Your task to perform on an android device: uninstall "Microsoft Excel" Image 0: 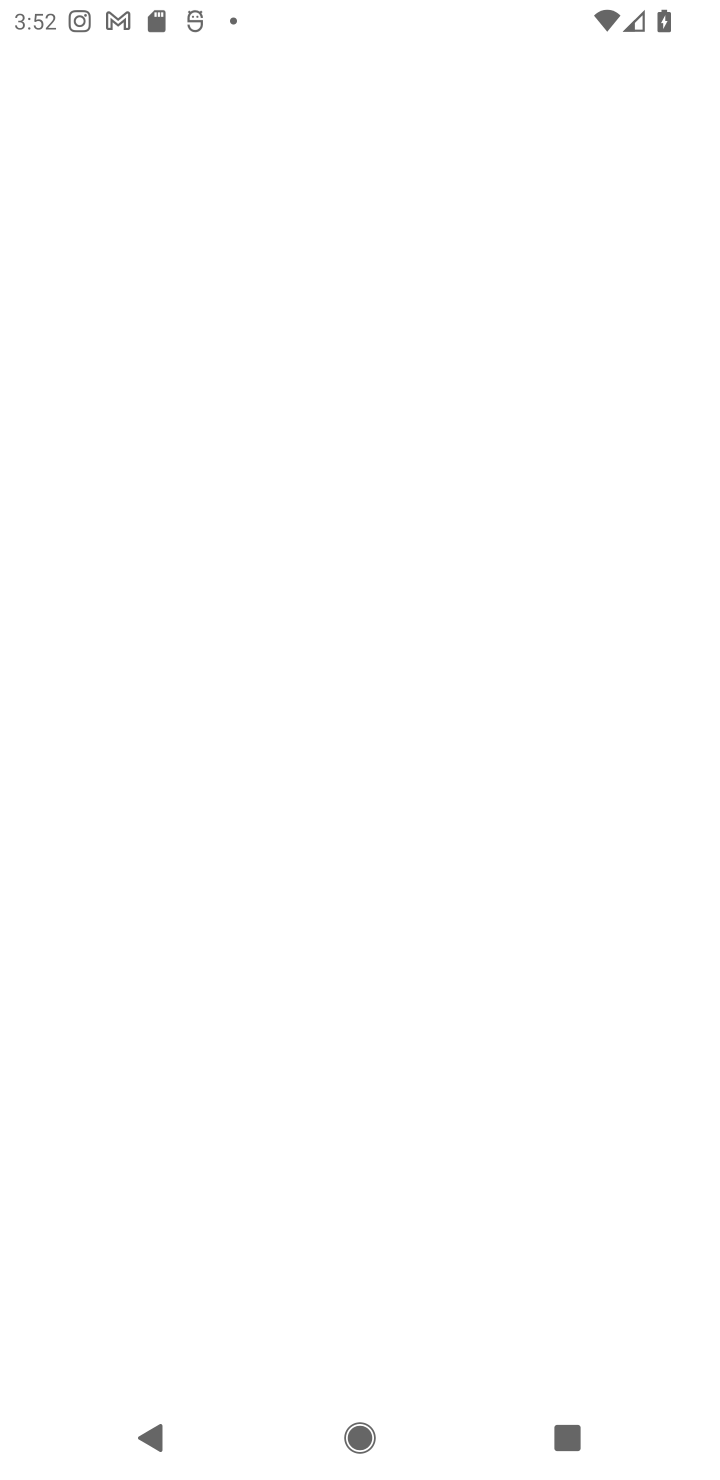
Step 0: press home button
Your task to perform on an android device: uninstall "Microsoft Excel" Image 1: 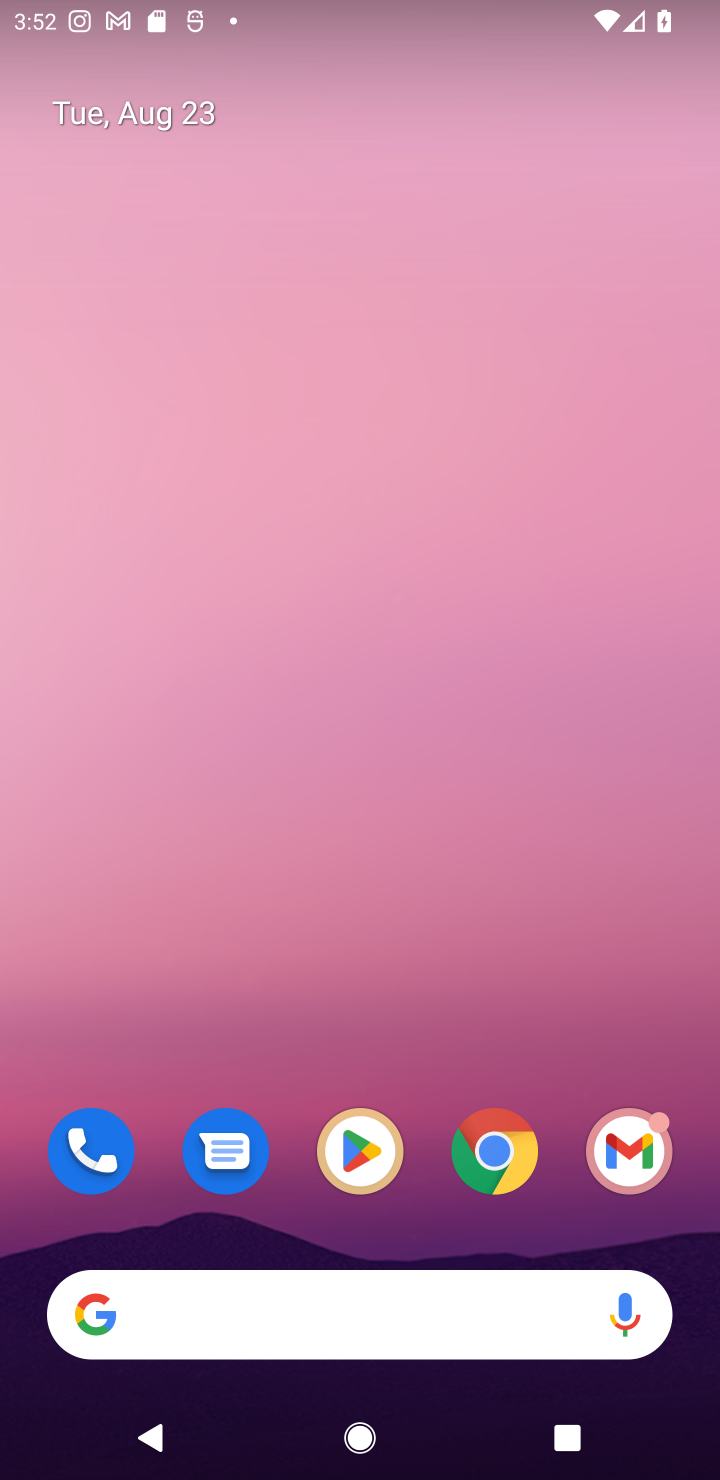
Step 1: click (378, 1155)
Your task to perform on an android device: uninstall "Microsoft Excel" Image 2: 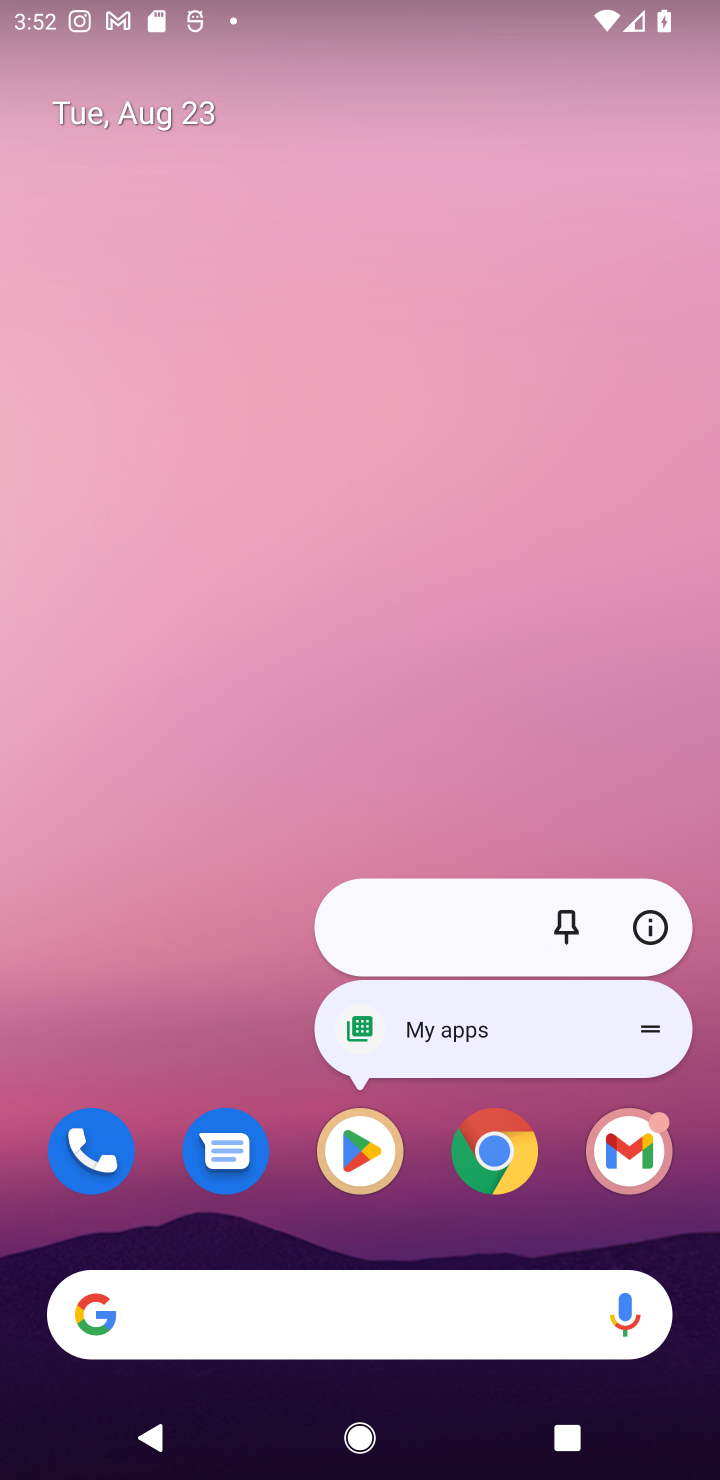
Step 2: click (367, 1158)
Your task to perform on an android device: uninstall "Microsoft Excel" Image 3: 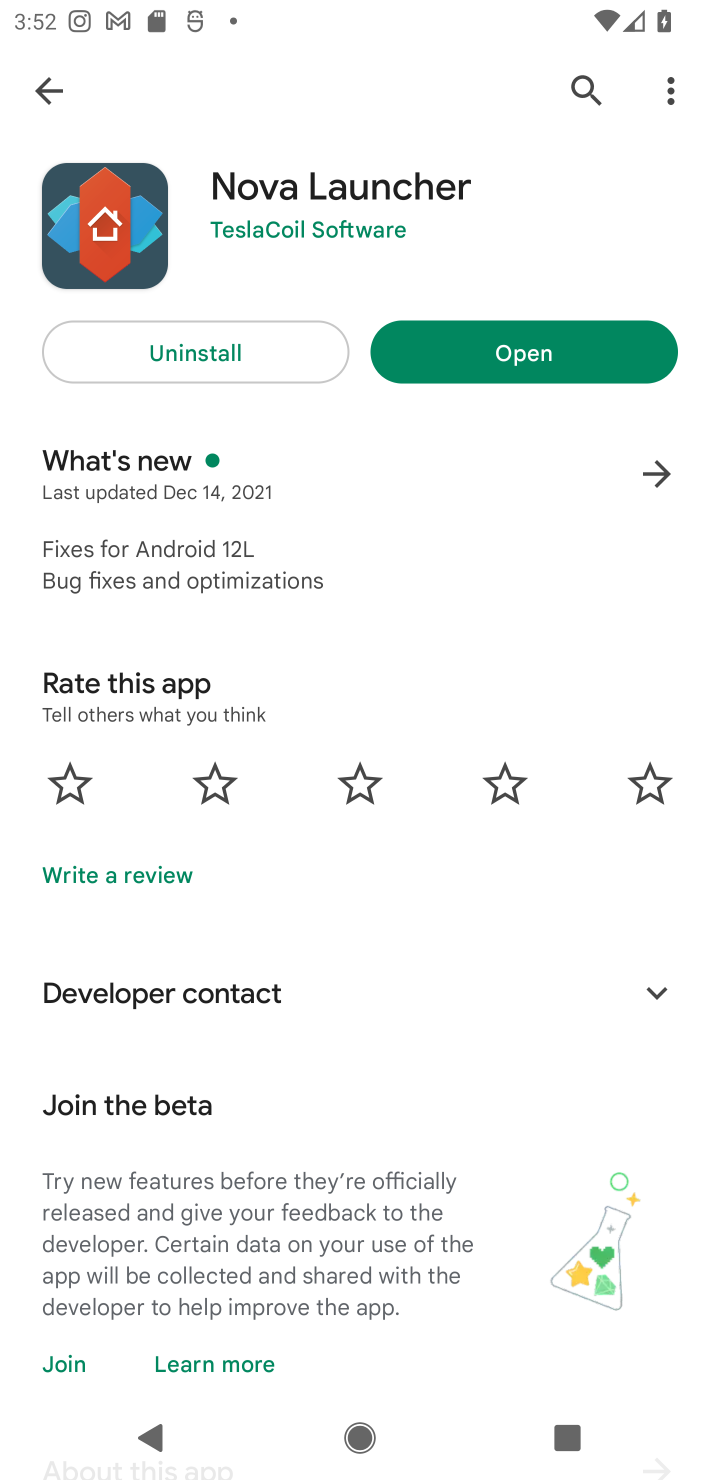
Step 3: click (579, 82)
Your task to perform on an android device: uninstall "Microsoft Excel" Image 4: 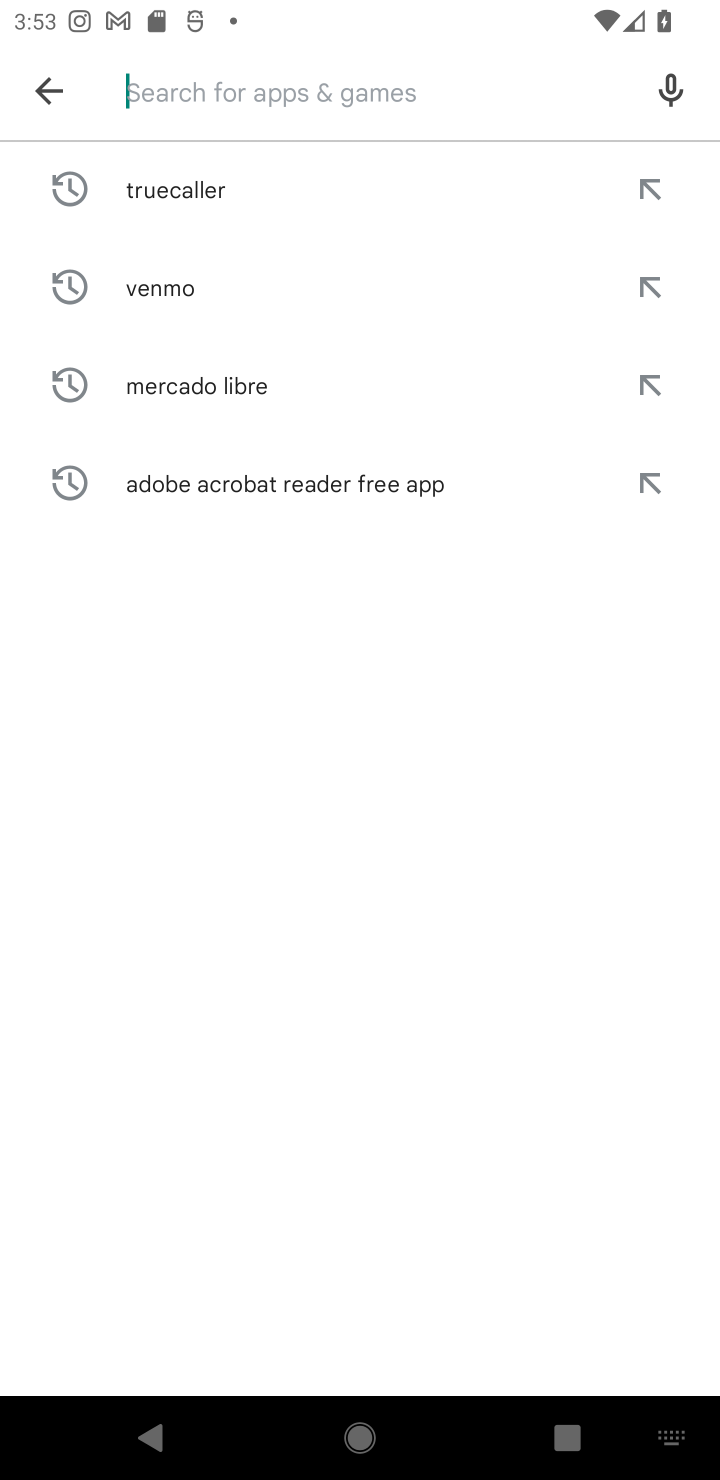
Step 4: type "Microsoft Excel"
Your task to perform on an android device: uninstall "Microsoft Excel" Image 5: 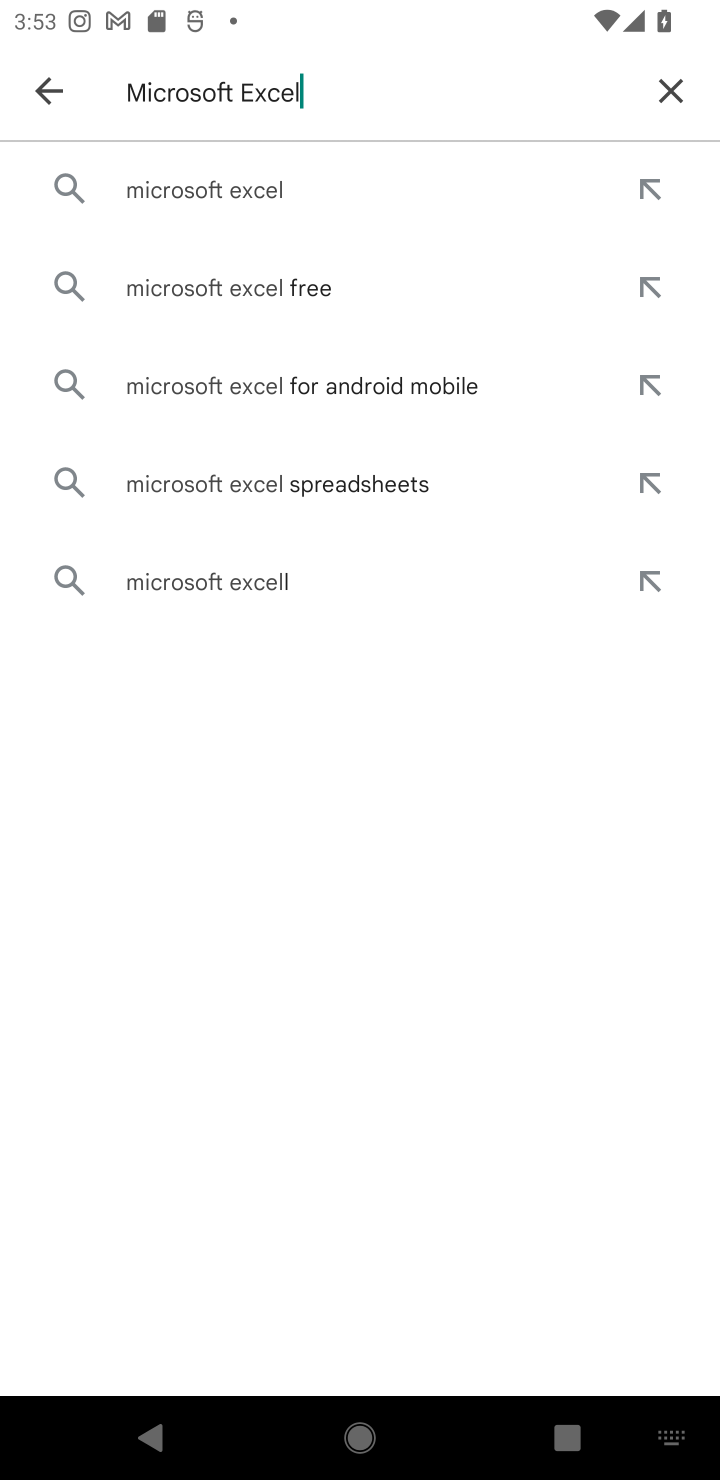
Step 5: click (241, 185)
Your task to perform on an android device: uninstall "Microsoft Excel" Image 6: 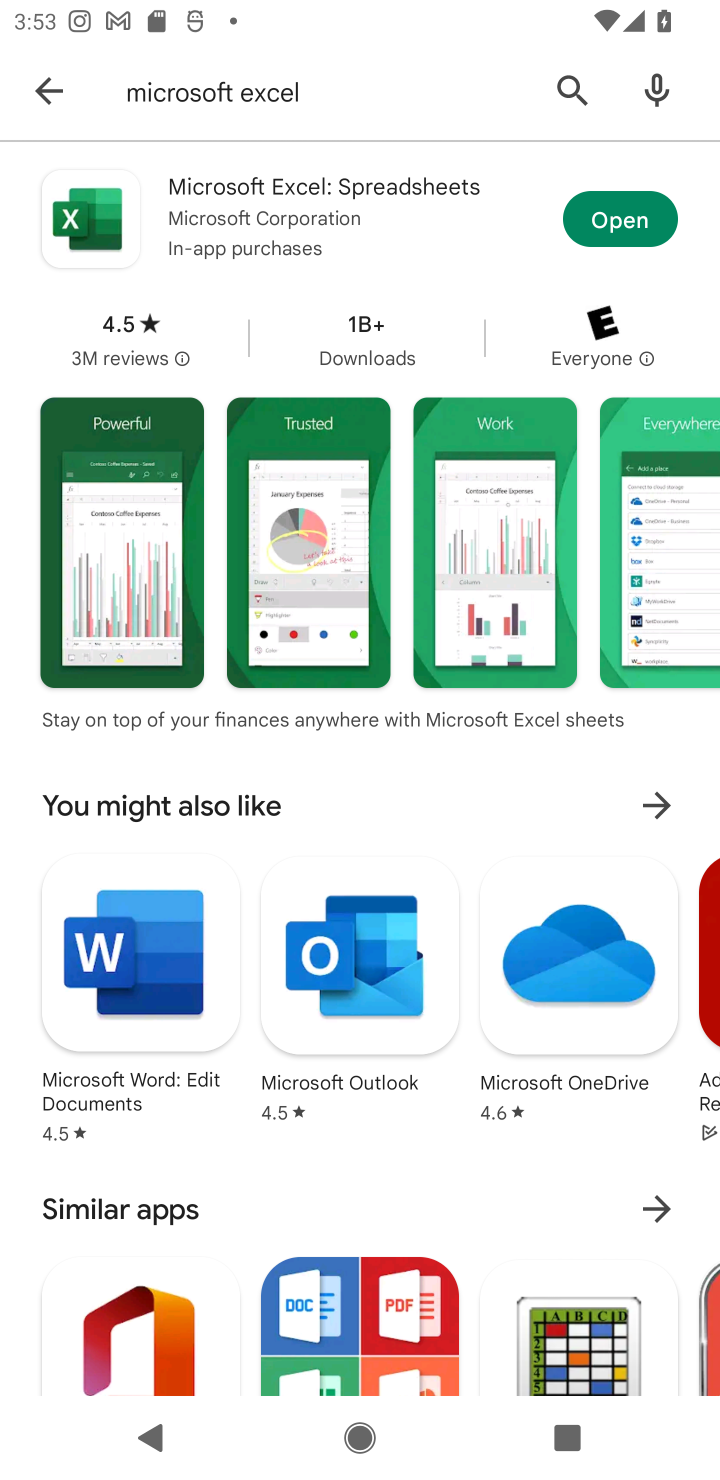
Step 6: click (197, 185)
Your task to perform on an android device: uninstall "Microsoft Excel" Image 7: 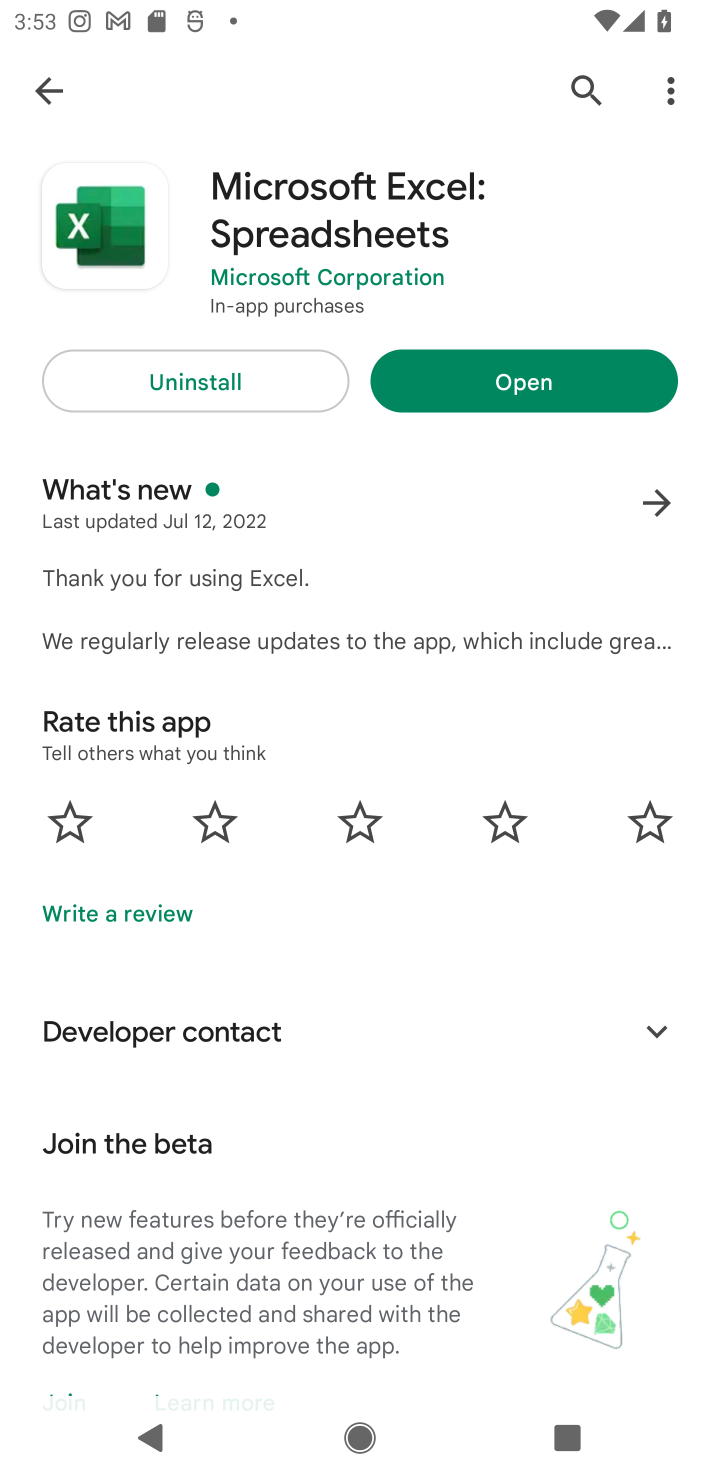
Step 7: click (207, 381)
Your task to perform on an android device: uninstall "Microsoft Excel" Image 8: 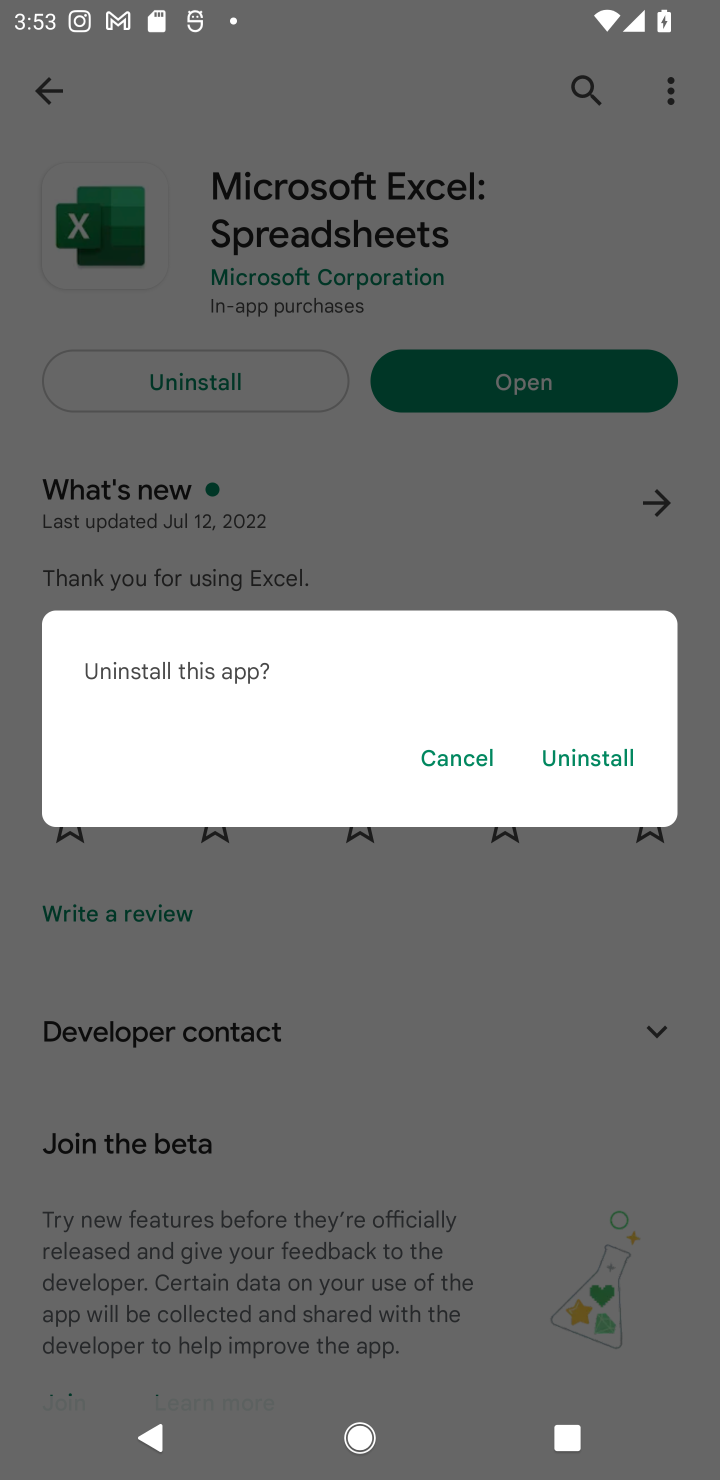
Step 8: click (583, 759)
Your task to perform on an android device: uninstall "Microsoft Excel" Image 9: 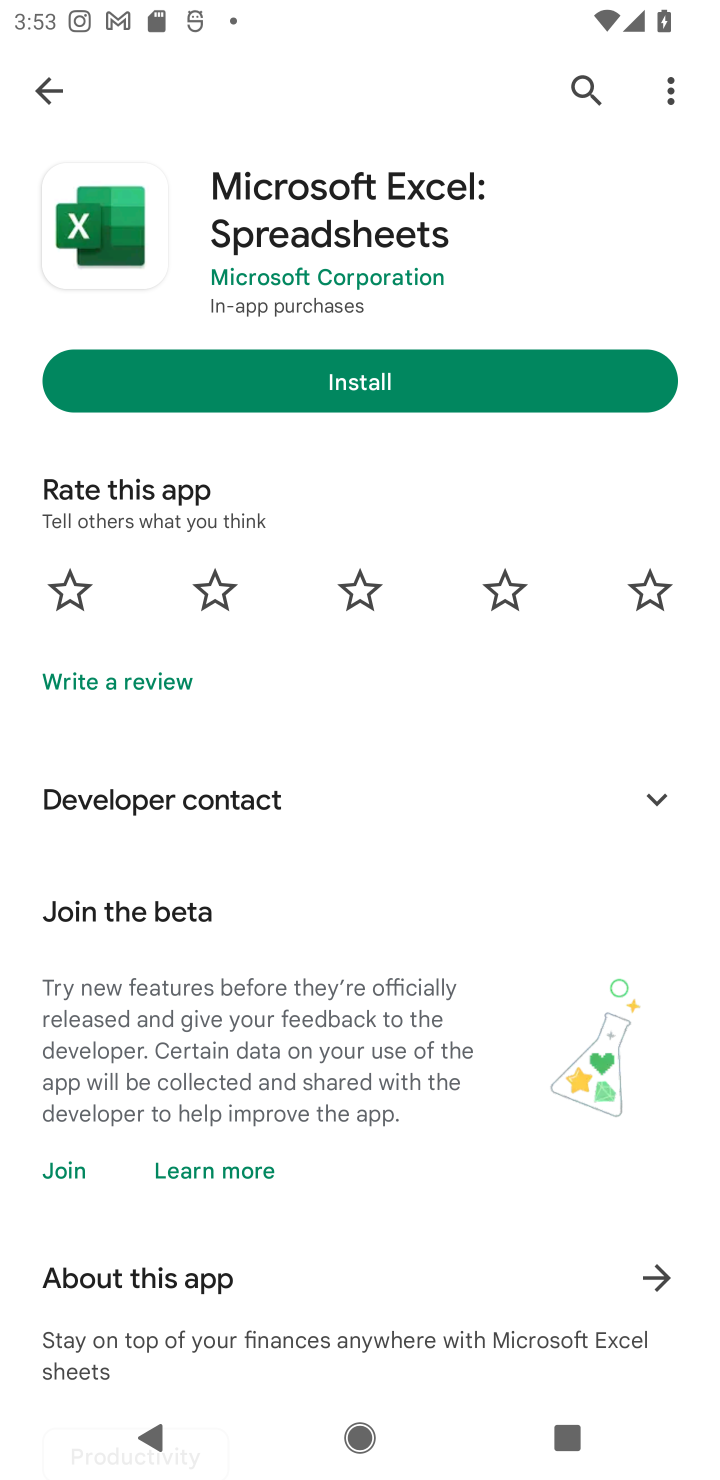
Step 9: task complete